Your task to perform on an android device: Open Reddit.com Image 0: 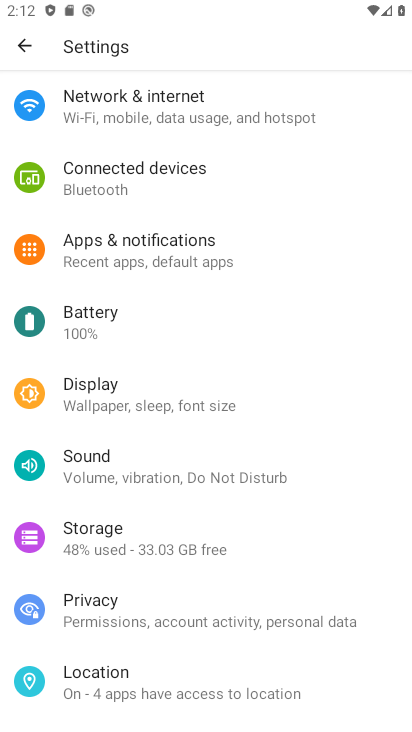
Step 0: press back button
Your task to perform on an android device: Open Reddit.com Image 1: 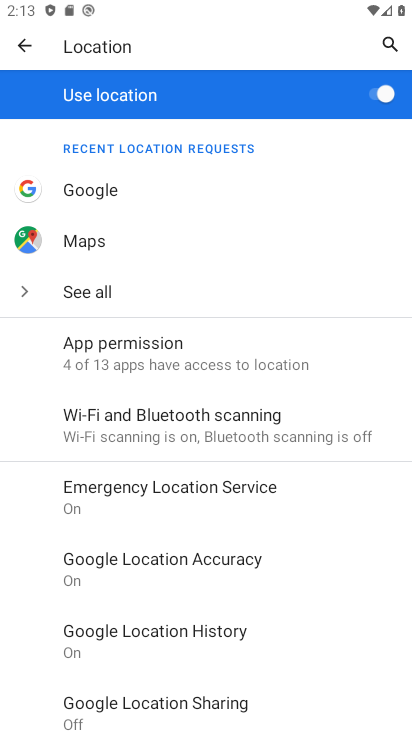
Step 1: click (22, 39)
Your task to perform on an android device: Open Reddit.com Image 2: 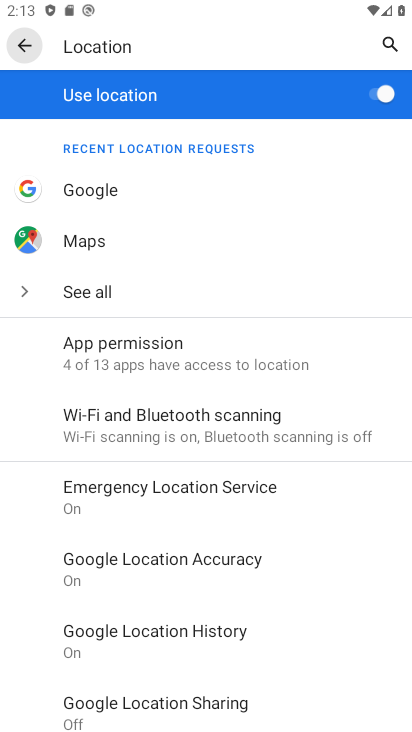
Step 2: click (26, 43)
Your task to perform on an android device: Open Reddit.com Image 3: 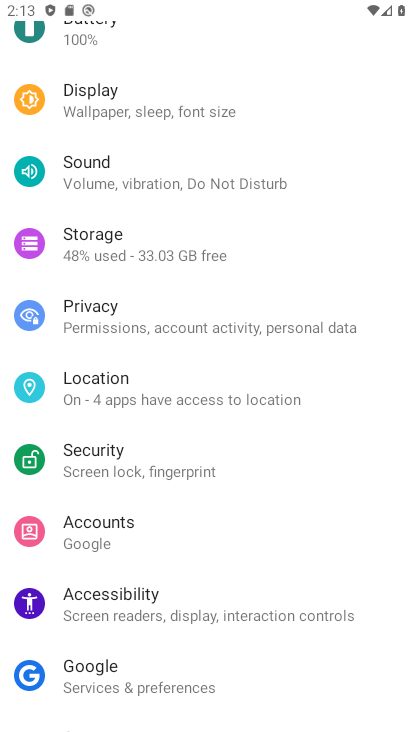
Step 3: press back button
Your task to perform on an android device: Open Reddit.com Image 4: 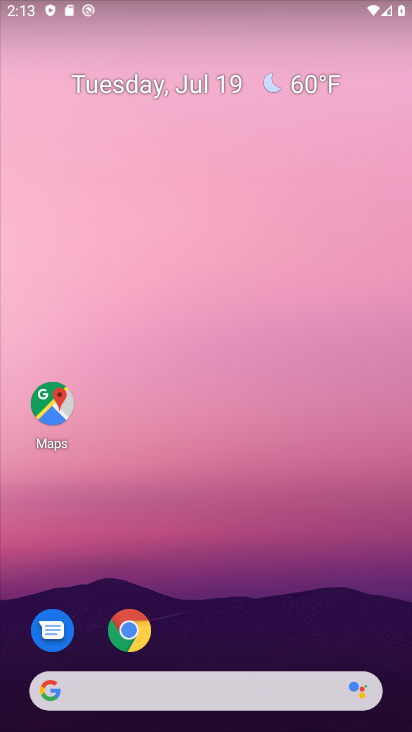
Step 4: drag from (316, 477) to (248, 172)
Your task to perform on an android device: Open Reddit.com Image 5: 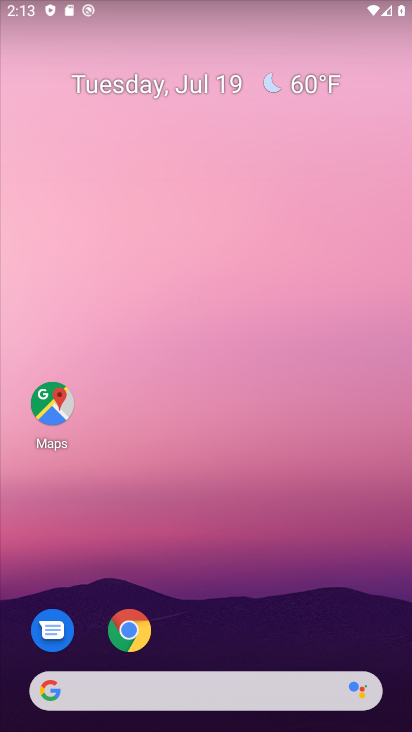
Step 5: drag from (239, 664) to (167, 176)
Your task to perform on an android device: Open Reddit.com Image 6: 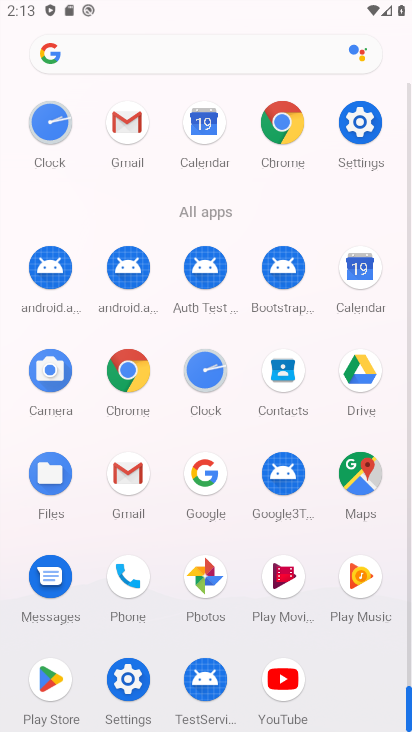
Step 6: click (282, 120)
Your task to perform on an android device: Open Reddit.com Image 7: 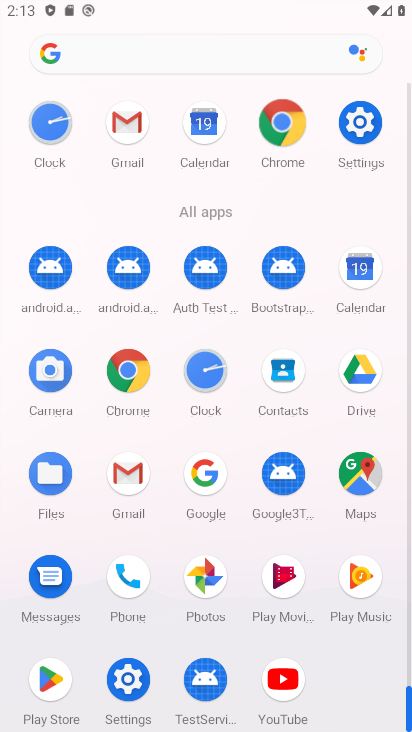
Step 7: click (282, 120)
Your task to perform on an android device: Open Reddit.com Image 8: 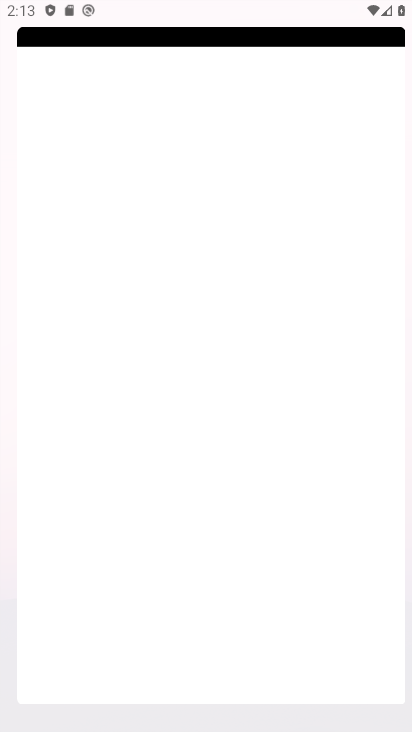
Step 8: click (282, 120)
Your task to perform on an android device: Open Reddit.com Image 9: 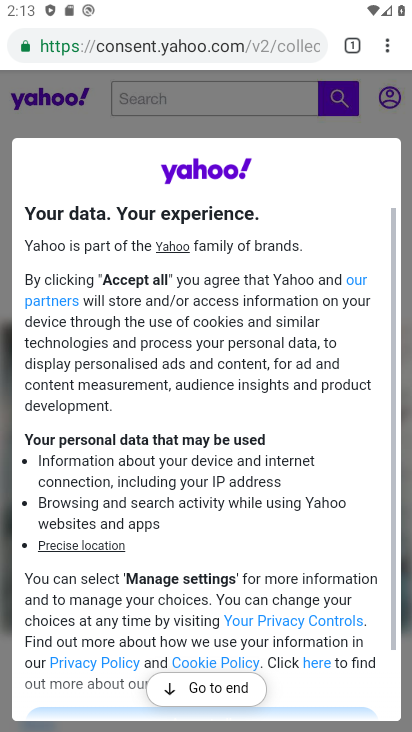
Step 9: drag from (388, 43) to (217, 91)
Your task to perform on an android device: Open Reddit.com Image 10: 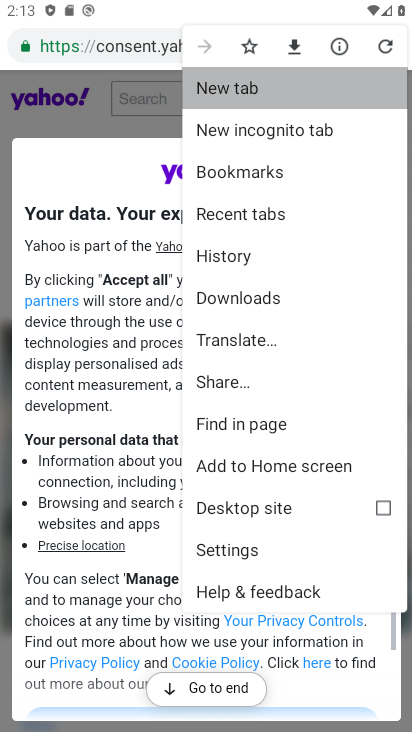
Step 10: click (218, 91)
Your task to perform on an android device: Open Reddit.com Image 11: 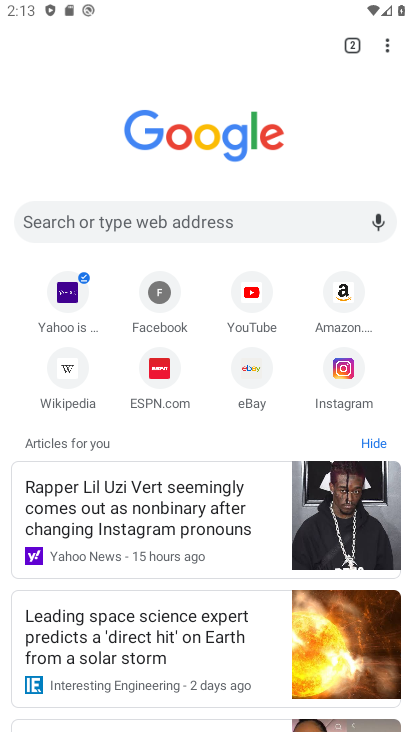
Step 11: click (87, 212)
Your task to perform on an android device: Open Reddit.com Image 12: 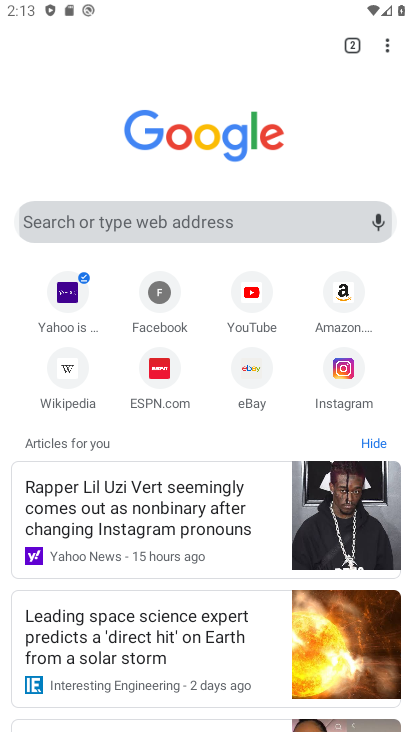
Step 12: click (88, 215)
Your task to perform on an android device: Open Reddit.com Image 13: 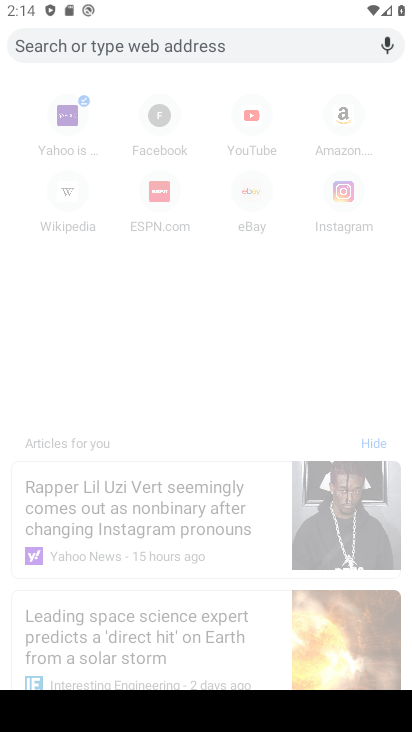
Step 13: type "reddit.com"
Your task to perform on an android device: Open Reddit.com Image 14: 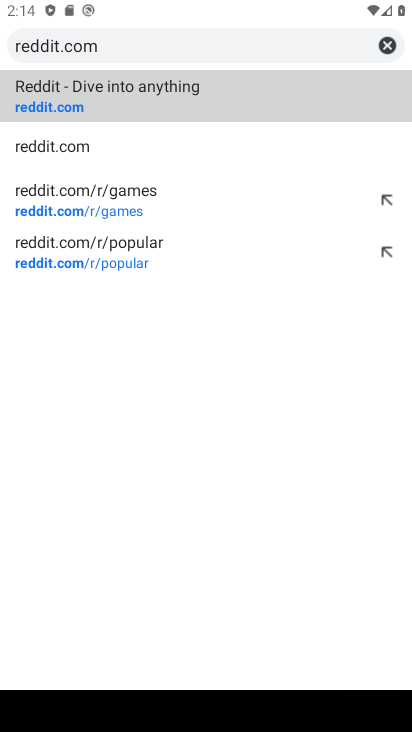
Step 14: click (104, 79)
Your task to perform on an android device: Open Reddit.com Image 15: 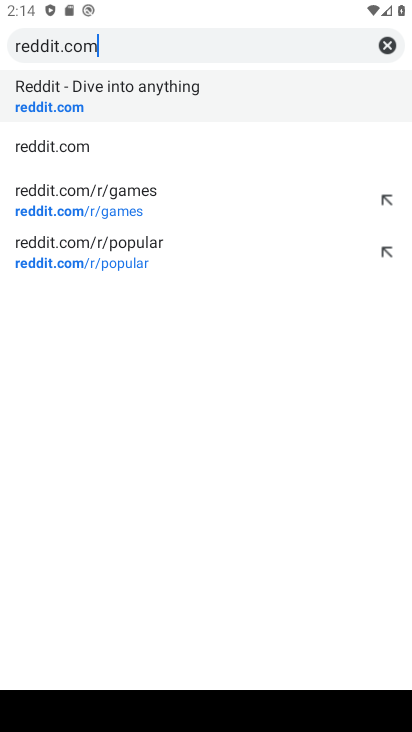
Step 15: click (104, 79)
Your task to perform on an android device: Open Reddit.com Image 16: 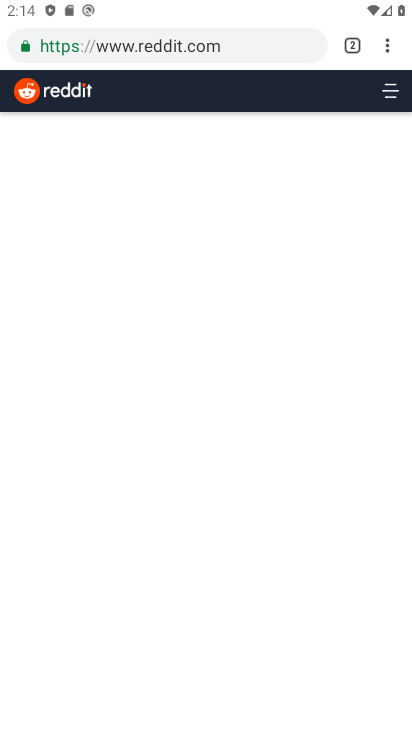
Step 16: task complete